Your task to perform on an android device: Show me the best rated coffee table on Ikea Image 0: 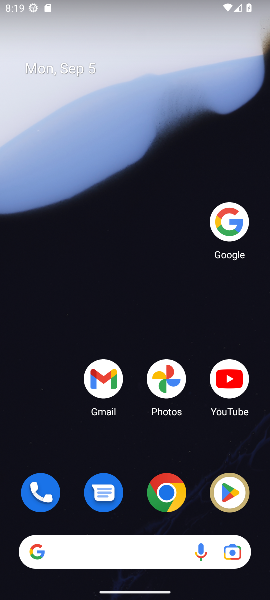
Step 0: click (228, 215)
Your task to perform on an android device: Show me the best rated coffee table on Ikea Image 1: 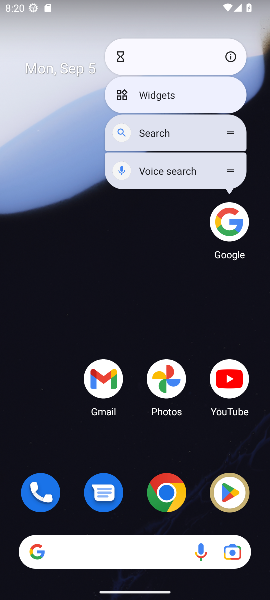
Step 1: click (228, 215)
Your task to perform on an android device: Show me the best rated coffee table on Ikea Image 2: 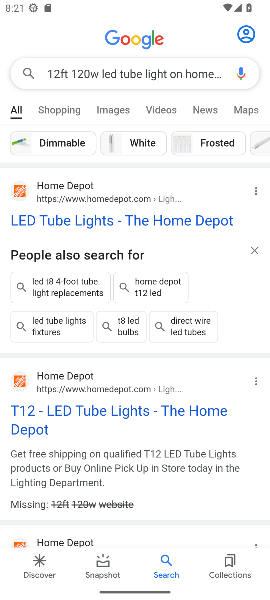
Step 2: click (152, 226)
Your task to perform on an android device: Show me the best rated coffee table on Ikea Image 3: 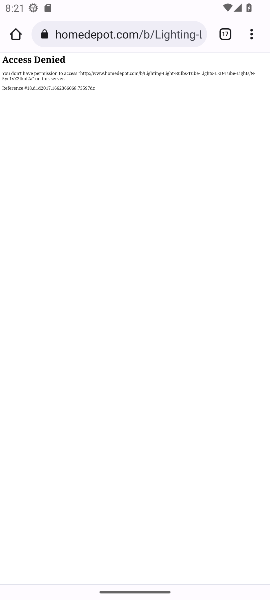
Step 3: click (254, 34)
Your task to perform on an android device: Show me the best rated coffee table on Ikea Image 4: 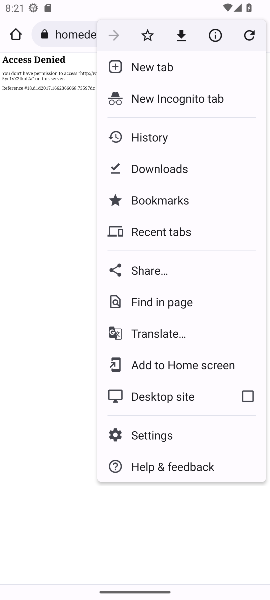
Step 4: click (161, 67)
Your task to perform on an android device: Show me the best rated coffee table on Ikea Image 5: 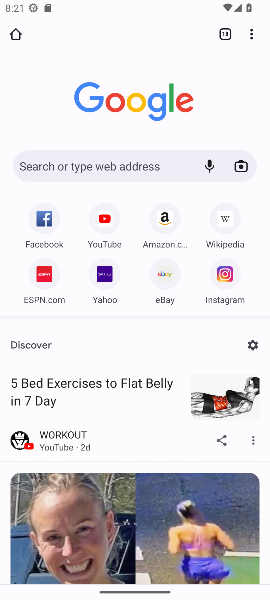
Step 5: click (130, 149)
Your task to perform on an android device: Show me the best rated coffee table on Ikea Image 6: 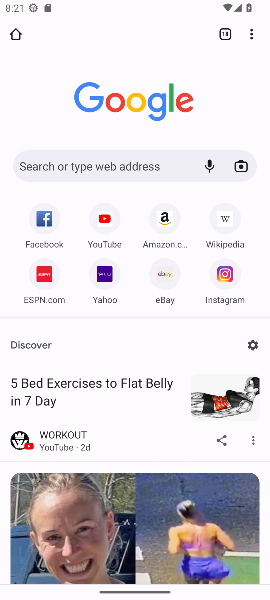
Step 6: click (81, 159)
Your task to perform on an android device: Show me the best rated coffee table on Ikea Image 7: 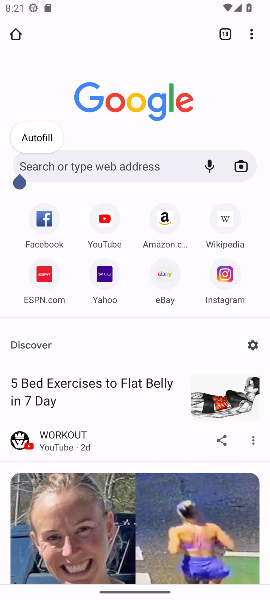
Step 7: click (128, 162)
Your task to perform on an android device: Show me the best rated coffee table on Ikea Image 8: 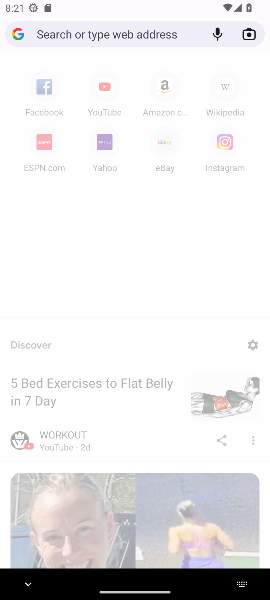
Step 8: click (116, 22)
Your task to perform on an android device: Show me the best rated coffee table on Ikea Image 9: 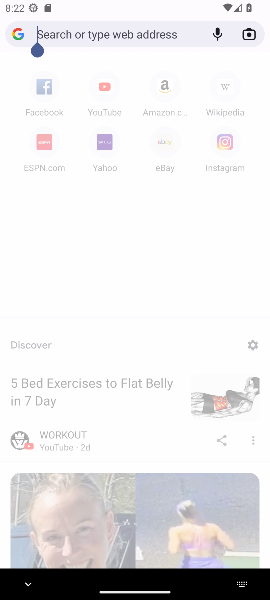
Step 9: type " the best rated coffee table on Ikea "
Your task to perform on an android device: Show me the best rated coffee table on Ikea Image 10: 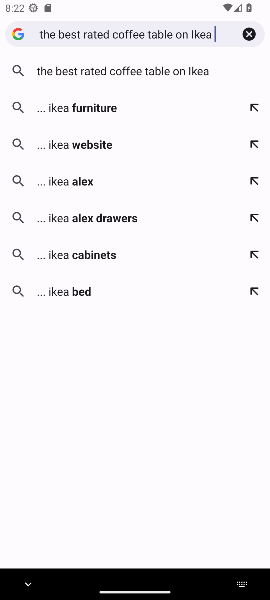
Step 10: click (68, 67)
Your task to perform on an android device: Show me the best rated coffee table on Ikea Image 11: 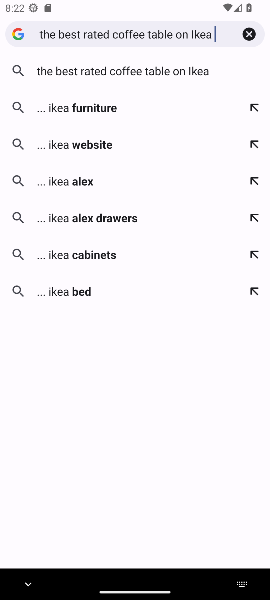
Step 11: click (84, 72)
Your task to perform on an android device: Show me the best rated coffee table on Ikea Image 12: 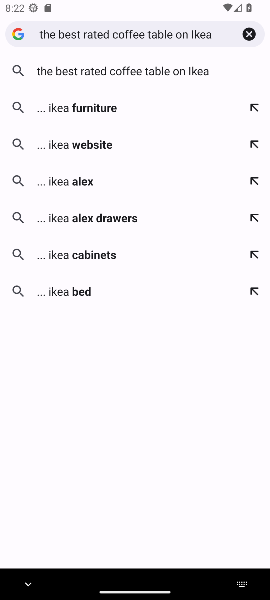
Step 12: click (93, 65)
Your task to perform on an android device: Show me the best rated coffee table on Ikea Image 13: 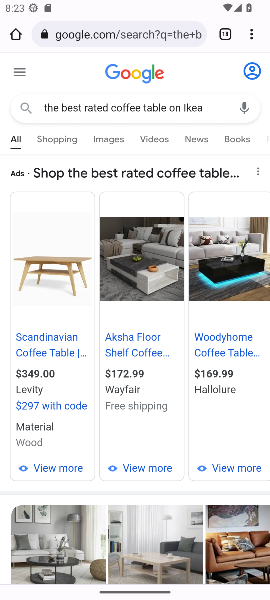
Step 13: drag from (114, 512) to (124, 135)
Your task to perform on an android device: Show me the best rated coffee table on Ikea Image 14: 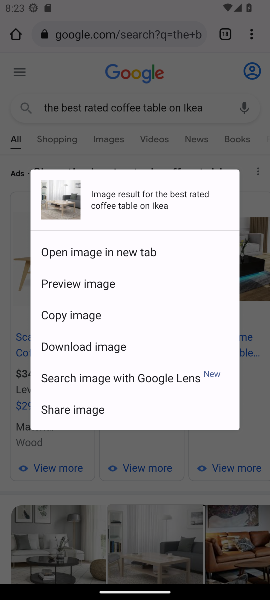
Step 14: click (187, 465)
Your task to perform on an android device: Show me the best rated coffee table on Ikea Image 15: 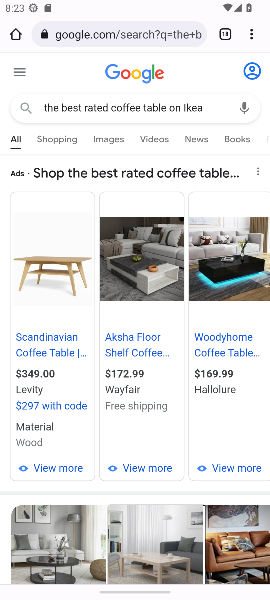
Step 15: task complete